Your task to perform on an android device: Do I have any events this weekend? Image 0: 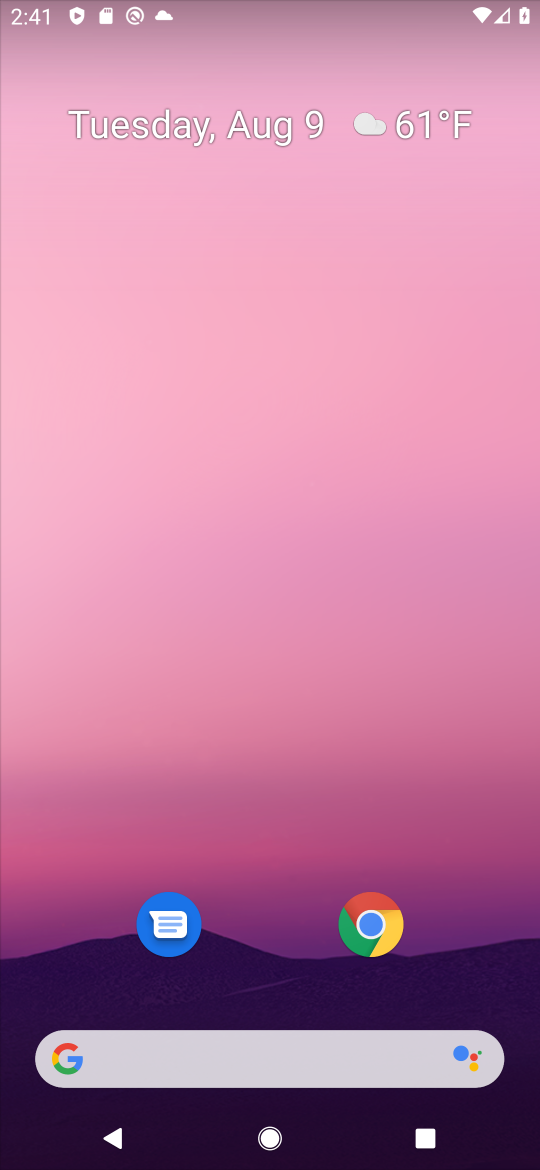
Step 0: drag from (269, 842) to (357, 1)
Your task to perform on an android device: Do I have any events this weekend? Image 1: 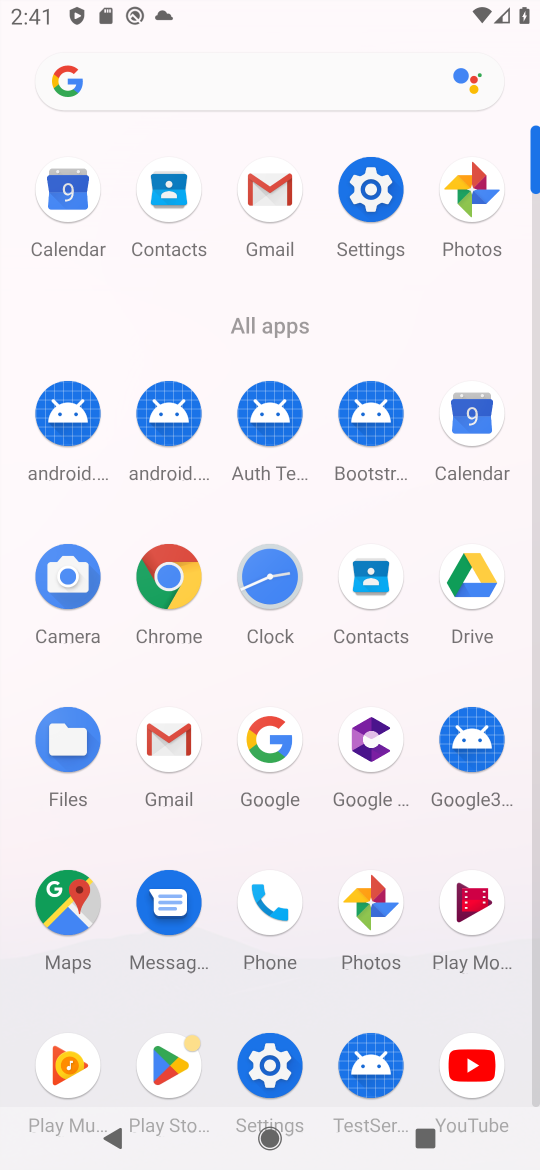
Step 1: click (62, 183)
Your task to perform on an android device: Do I have any events this weekend? Image 2: 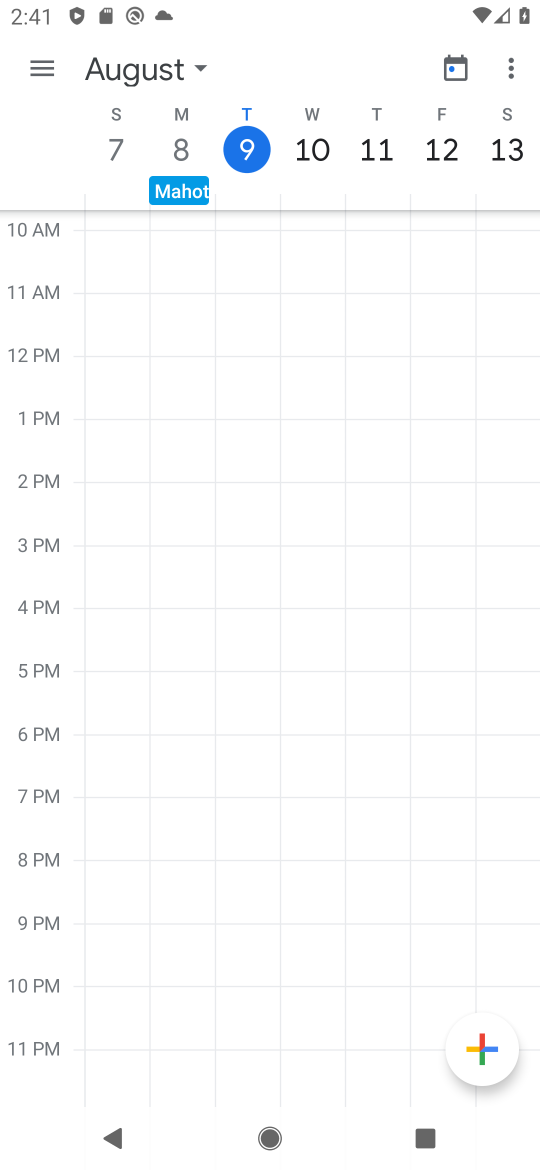
Step 2: click (501, 144)
Your task to perform on an android device: Do I have any events this weekend? Image 3: 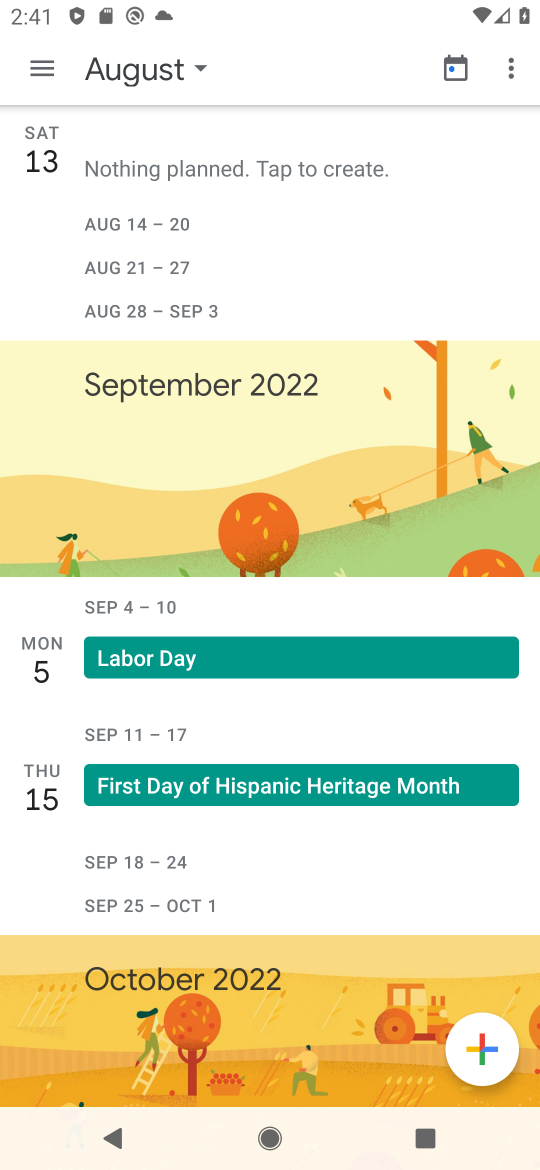
Step 3: task complete